Your task to perform on an android device: toggle pop-ups in chrome Image 0: 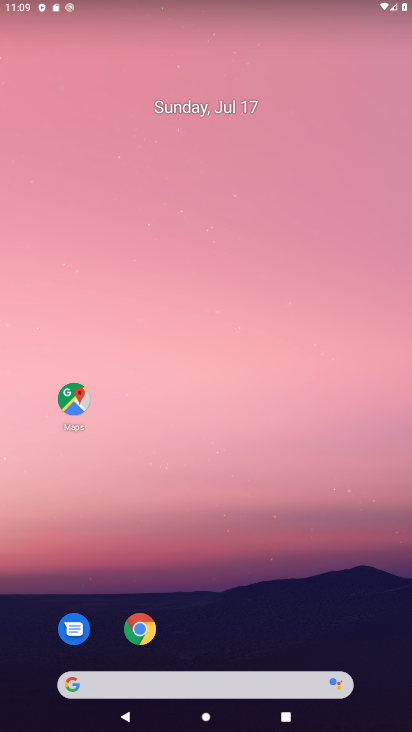
Step 0: drag from (170, 589) to (185, 241)
Your task to perform on an android device: toggle pop-ups in chrome Image 1: 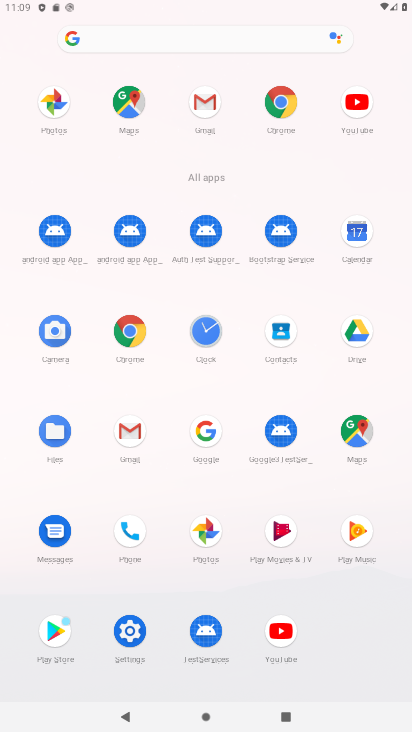
Step 1: click (275, 102)
Your task to perform on an android device: toggle pop-ups in chrome Image 2: 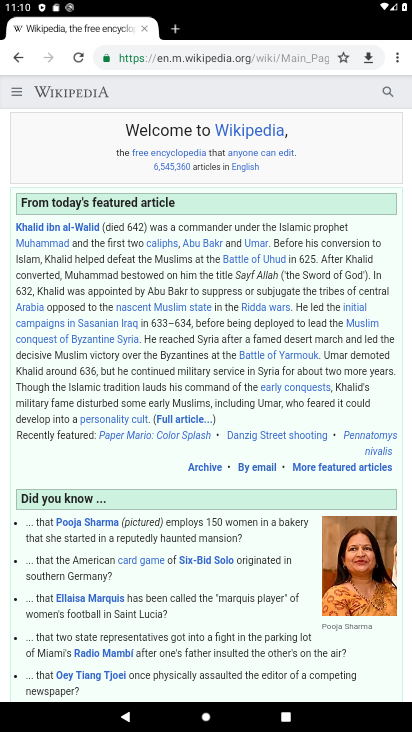
Step 2: click (399, 52)
Your task to perform on an android device: toggle pop-ups in chrome Image 3: 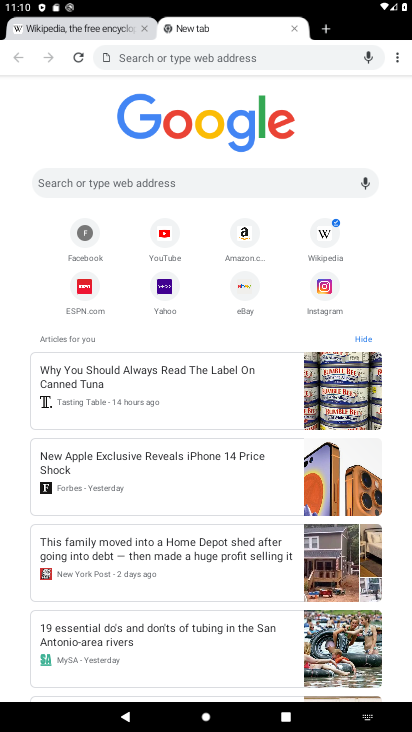
Step 3: click (402, 47)
Your task to perform on an android device: toggle pop-ups in chrome Image 4: 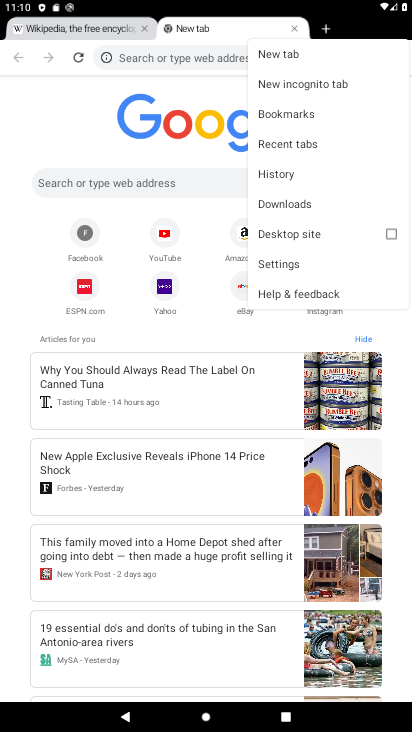
Step 4: click (311, 263)
Your task to perform on an android device: toggle pop-ups in chrome Image 5: 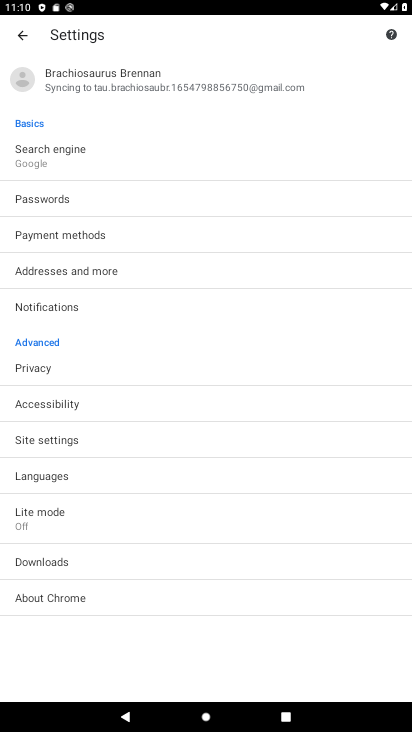
Step 5: click (75, 434)
Your task to perform on an android device: toggle pop-ups in chrome Image 6: 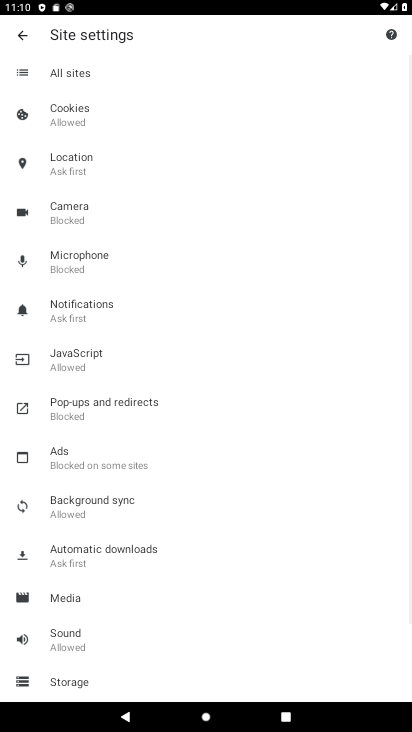
Step 6: click (75, 414)
Your task to perform on an android device: toggle pop-ups in chrome Image 7: 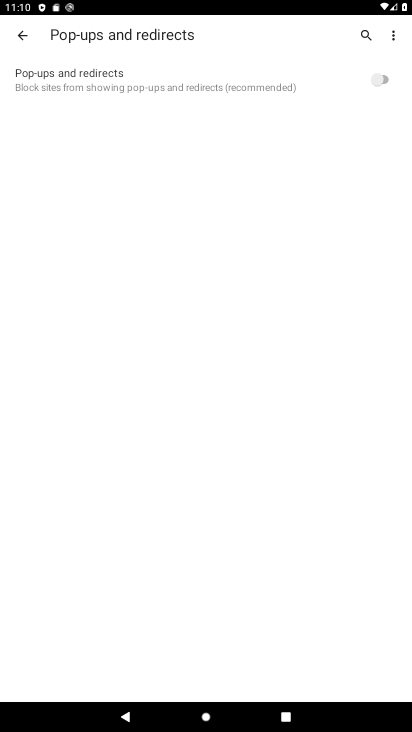
Step 7: click (373, 76)
Your task to perform on an android device: toggle pop-ups in chrome Image 8: 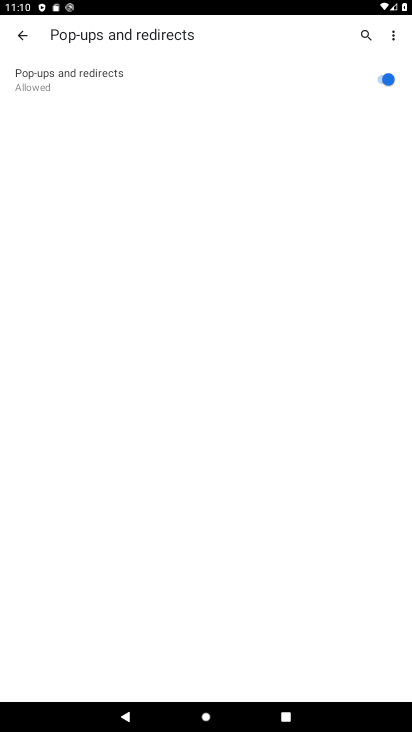
Step 8: task complete